Your task to perform on an android device: Open Chrome and go to the settings page Image 0: 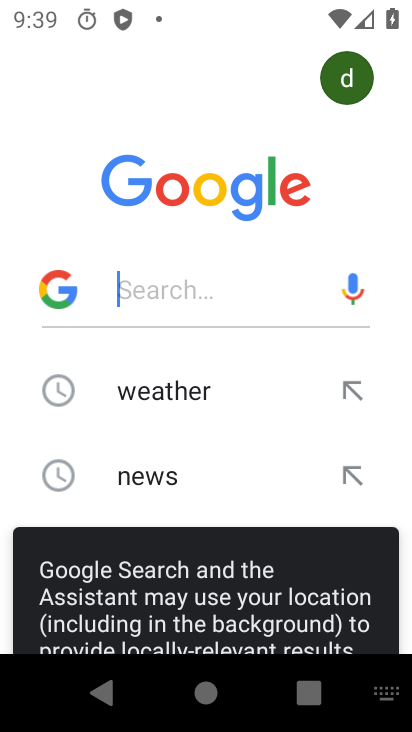
Step 0: press back button
Your task to perform on an android device: Open Chrome and go to the settings page Image 1: 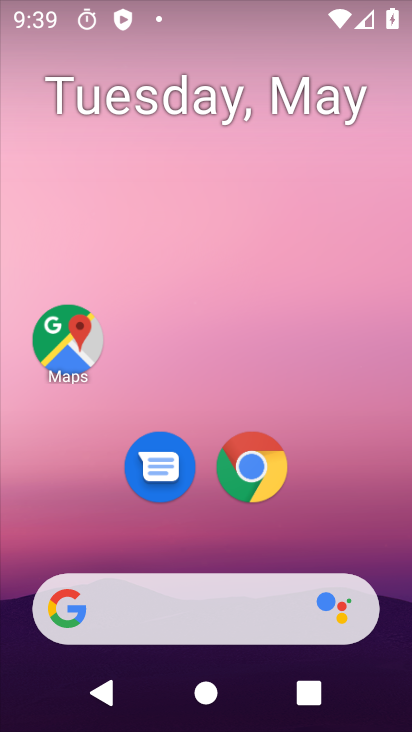
Step 1: drag from (382, 521) to (265, 4)
Your task to perform on an android device: Open Chrome and go to the settings page Image 2: 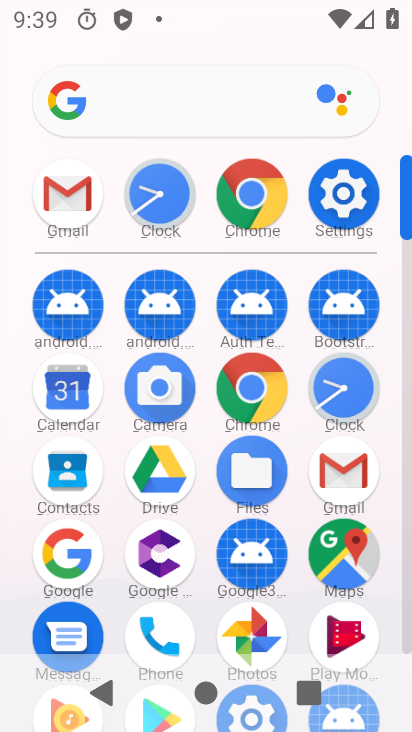
Step 2: drag from (17, 554) to (7, 208)
Your task to perform on an android device: Open Chrome and go to the settings page Image 3: 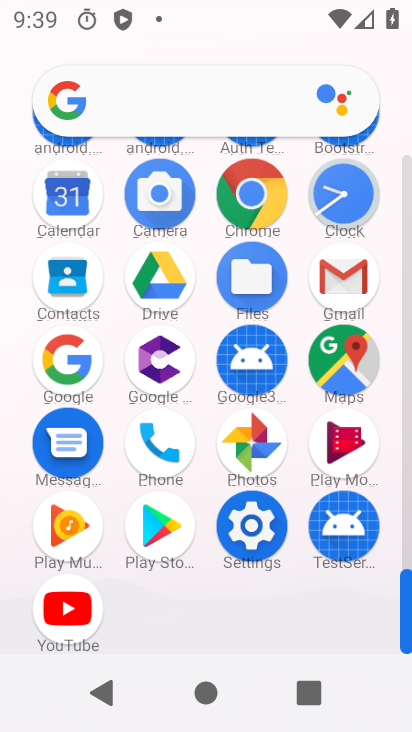
Step 3: click (249, 517)
Your task to perform on an android device: Open Chrome and go to the settings page Image 4: 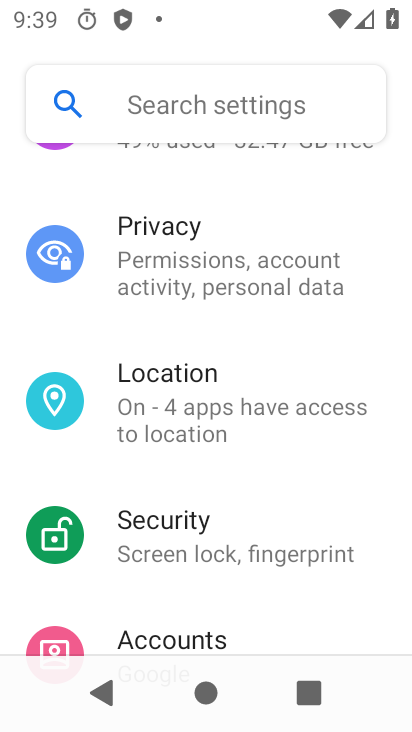
Step 4: press back button
Your task to perform on an android device: Open Chrome and go to the settings page Image 5: 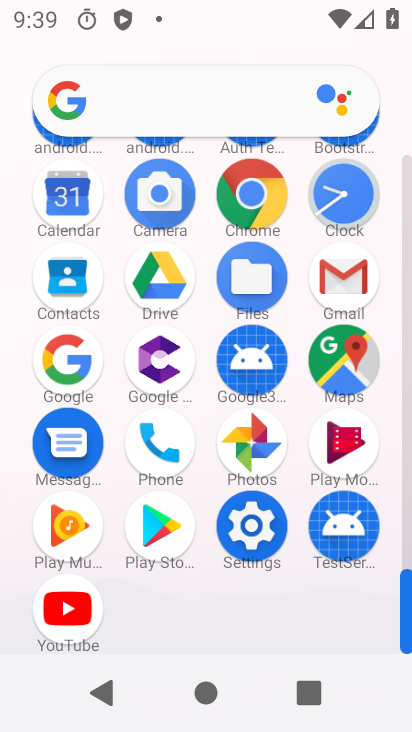
Step 5: click (248, 192)
Your task to perform on an android device: Open Chrome and go to the settings page Image 6: 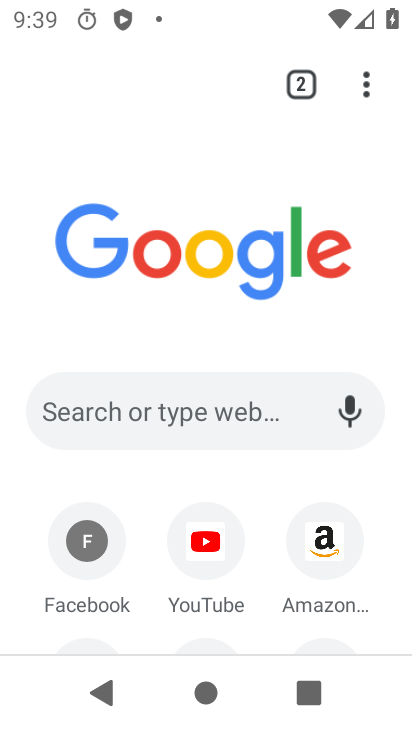
Step 6: task complete